Your task to perform on an android device: Open Maps and search for coffee Image 0: 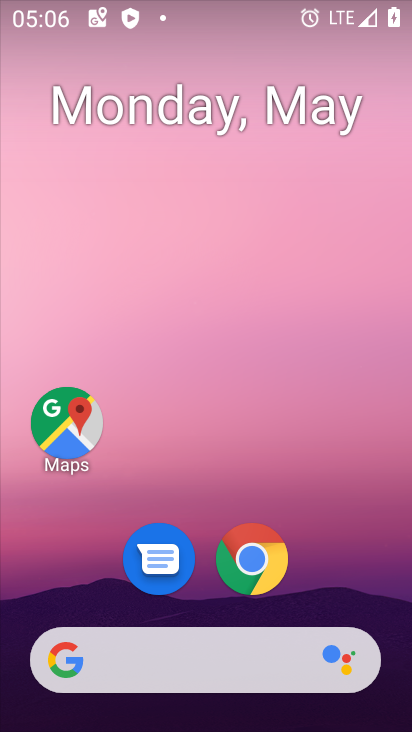
Step 0: drag from (350, 642) to (378, 50)
Your task to perform on an android device: Open Maps and search for coffee Image 1: 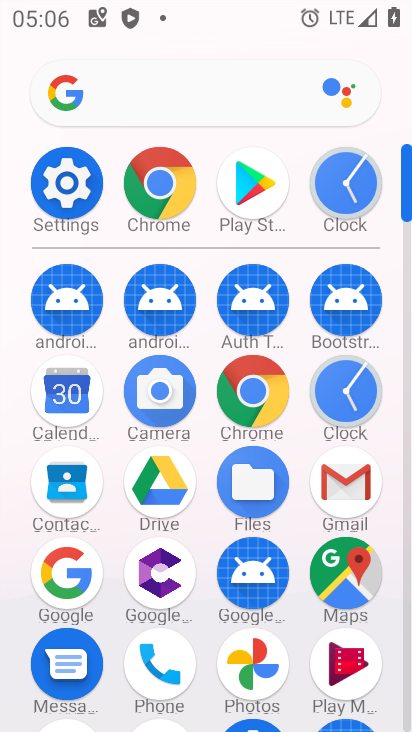
Step 1: click (366, 554)
Your task to perform on an android device: Open Maps and search for coffee Image 2: 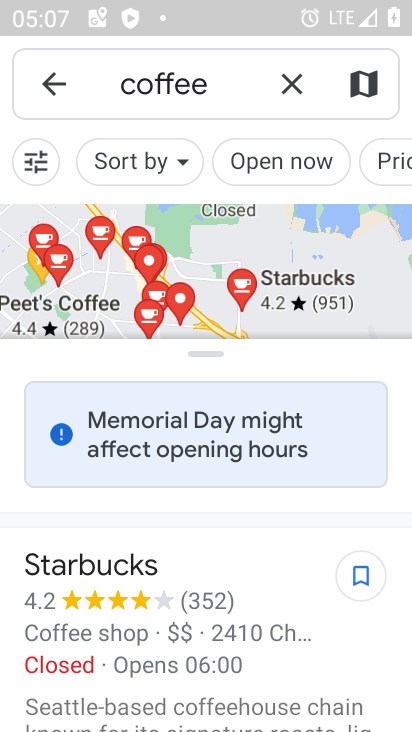
Step 2: press back button
Your task to perform on an android device: Open Maps and search for coffee Image 3: 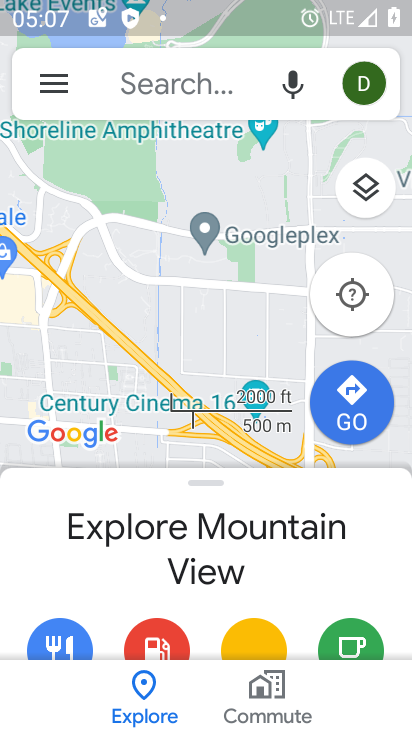
Step 3: click (45, 87)
Your task to perform on an android device: Open Maps and search for coffee Image 4: 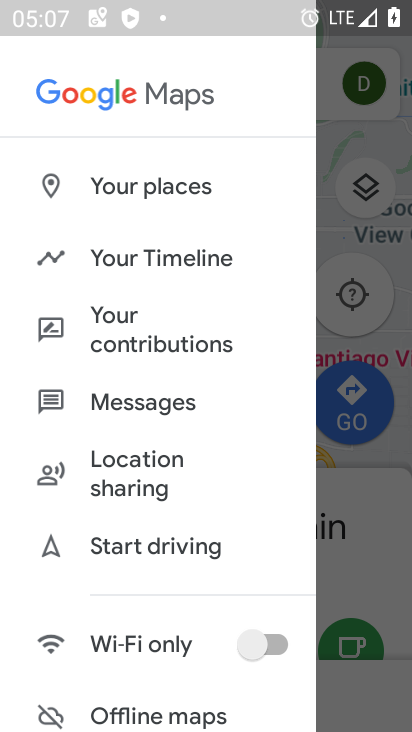
Step 4: click (347, 163)
Your task to perform on an android device: Open Maps and search for coffee Image 5: 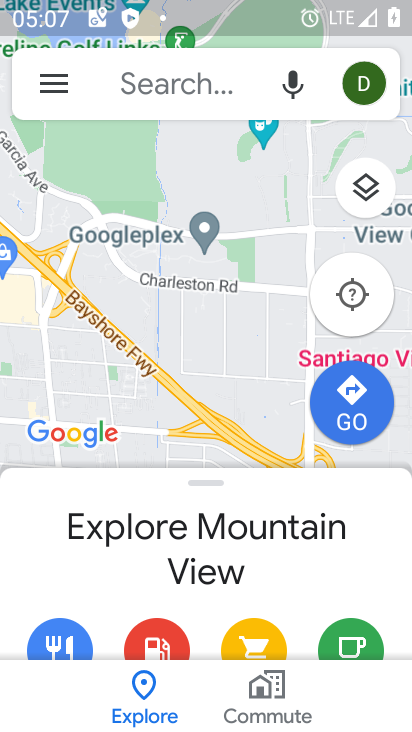
Step 5: click (217, 98)
Your task to perform on an android device: Open Maps and search for coffee Image 6: 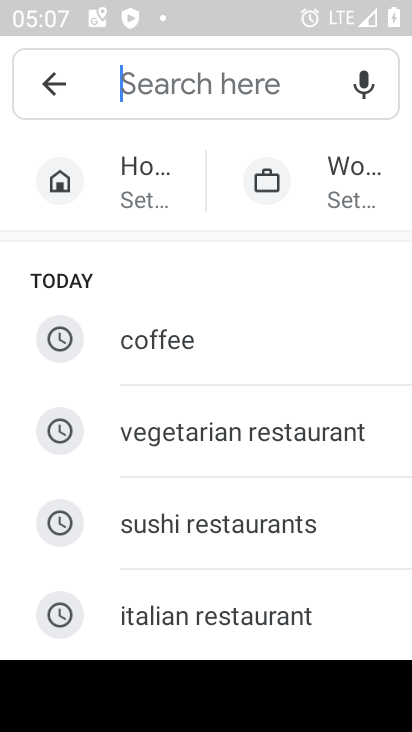
Step 6: click (191, 76)
Your task to perform on an android device: Open Maps and search for coffee Image 7: 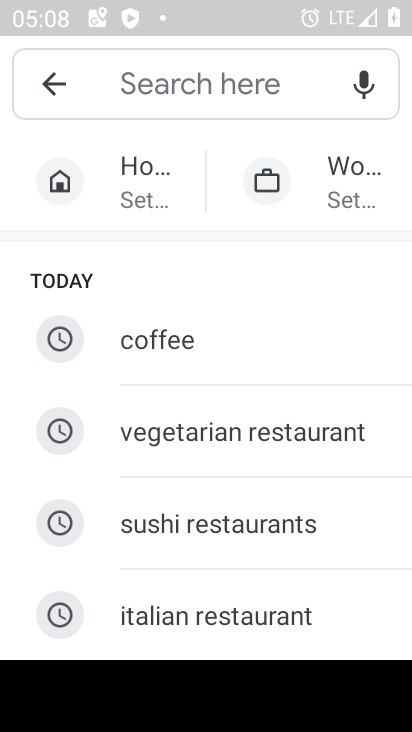
Step 7: type "coffee"
Your task to perform on an android device: Open Maps and search for coffee Image 8: 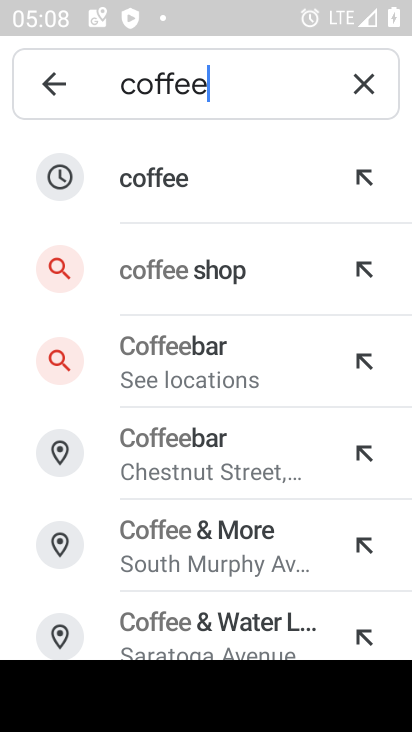
Step 8: click (254, 187)
Your task to perform on an android device: Open Maps and search for coffee Image 9: 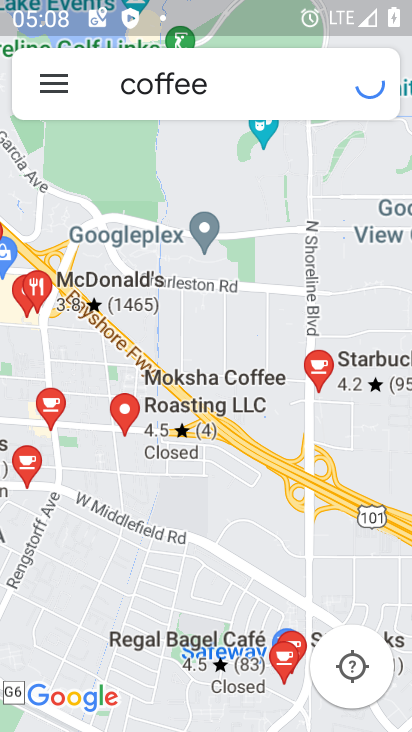
Step 9: task complete